Your task to perform on an android device: open app "Microsoft Excel" (install if not already installed) Image 0: 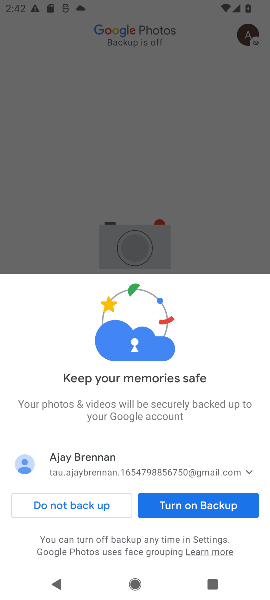
Step 0: press home button
Your task to perform on an android device: open app "Microsoft Excel" (install if not already installed) Image 1: 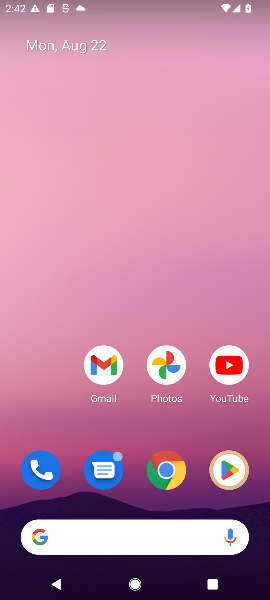
Step 1: drag from (83, 511) to (102, 194)
Your task to perform on an android device: open app "Microsoft Excel" (install if not already installed) Image 2: 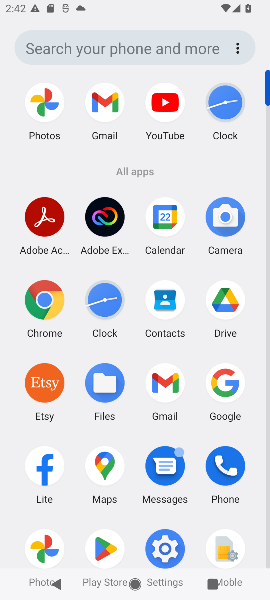
Step 2: click (104, 540)
Your task to perform on an android device: open app "Microsoft Excel" (install if not already installed) Image 3: 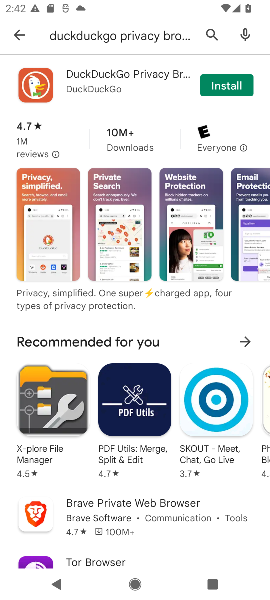
Step 3: click (23, 29)
Your task to perform on an android device: open app "Microsoft Excel" (install if not already installed) Image 4: 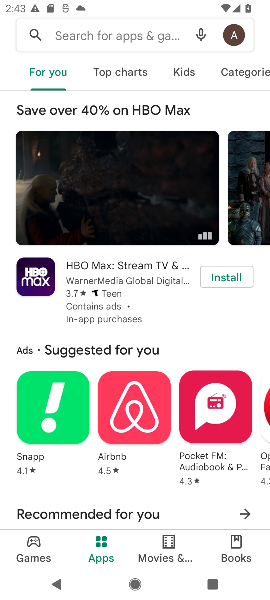
Step 4: click (137, 32)
Your task to perform on an android device: open app "Microsoft Excel" (install if not already installed) Image 5: 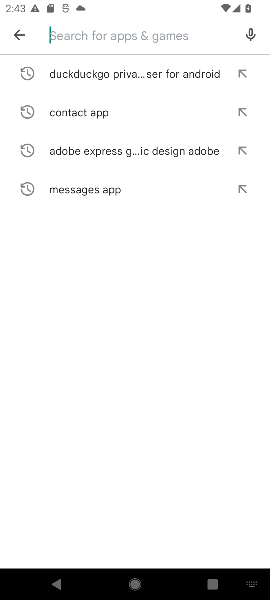
Step 5: type "Microsoft Excel "
Your task to perform on an android device: open app "Microsoft Excel" (install if not already installed) Image 6: 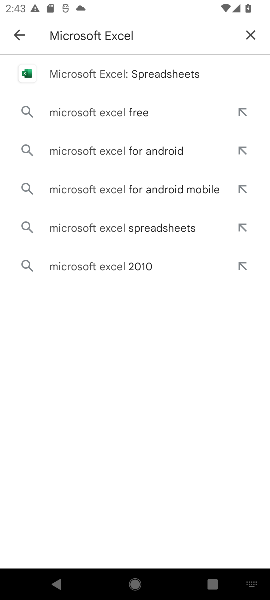
Step 6: click (128, 142)
Your task to perform on an android device: open app "Microsoft Excel" (install if not already installed) Image 7: 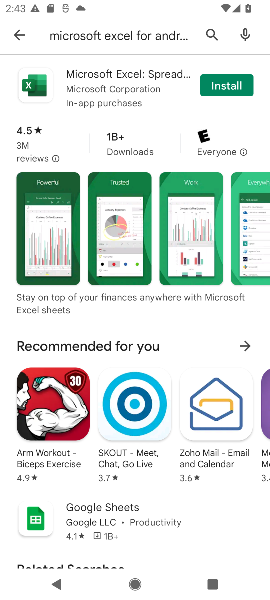
Step 7: click (240, 83)
Your task to perform on an android device: open app "Microsoft Excel" (install if not already installed) Image 8: 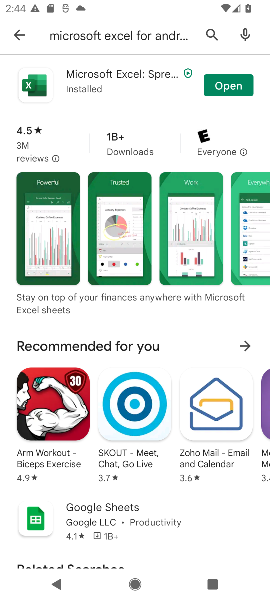
Step 8: click (225, 87)
Your task to perform on an android device: open app "Microsoft Excel" (install if not already installed) Image 9: 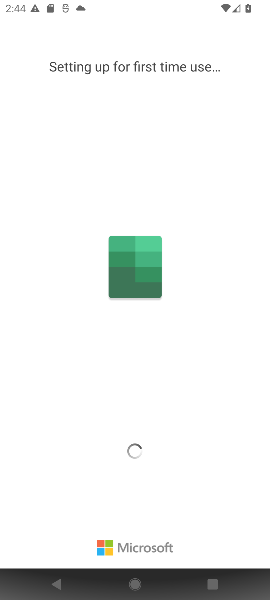
Step 9: task complete